Your task to perform on an android device: open chrome privacy settings Image 0: 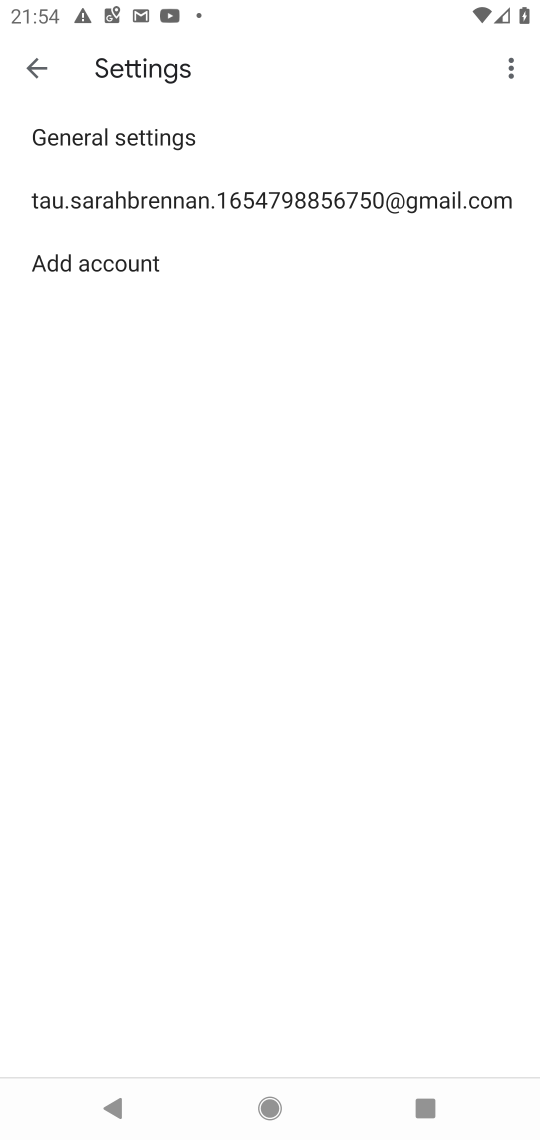
Step 0: press home button
Your task to perform on an android device: open chrome privacy settings Image 1: 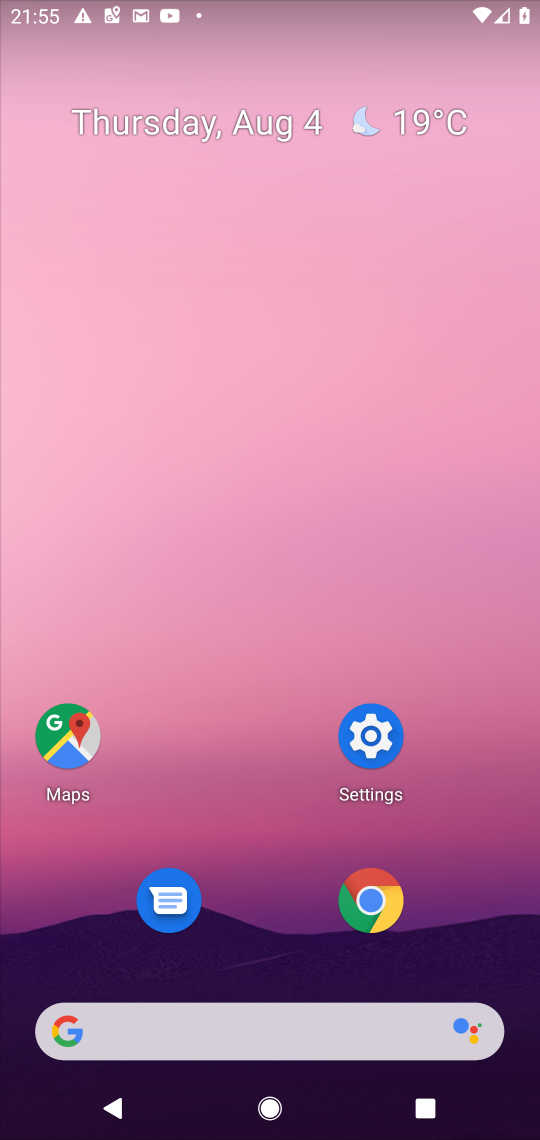
Step 1: click (365, 903)
Your task to perform on an android device: open chrome privacy settings Image 2: 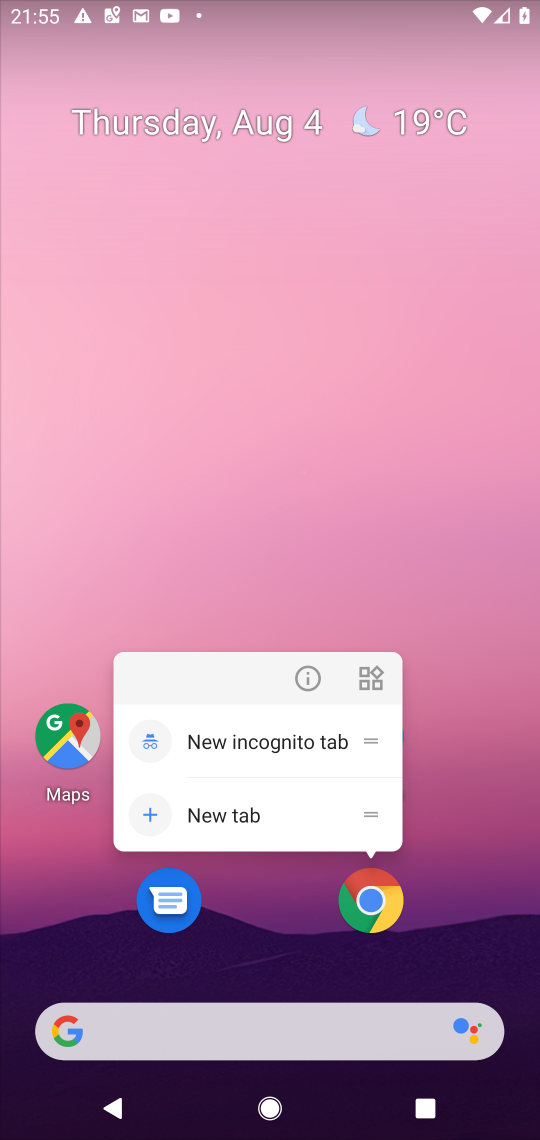
Step 2: click (365, 904)
Your task to perform on an android device: open chrome privacy settings Image 3: 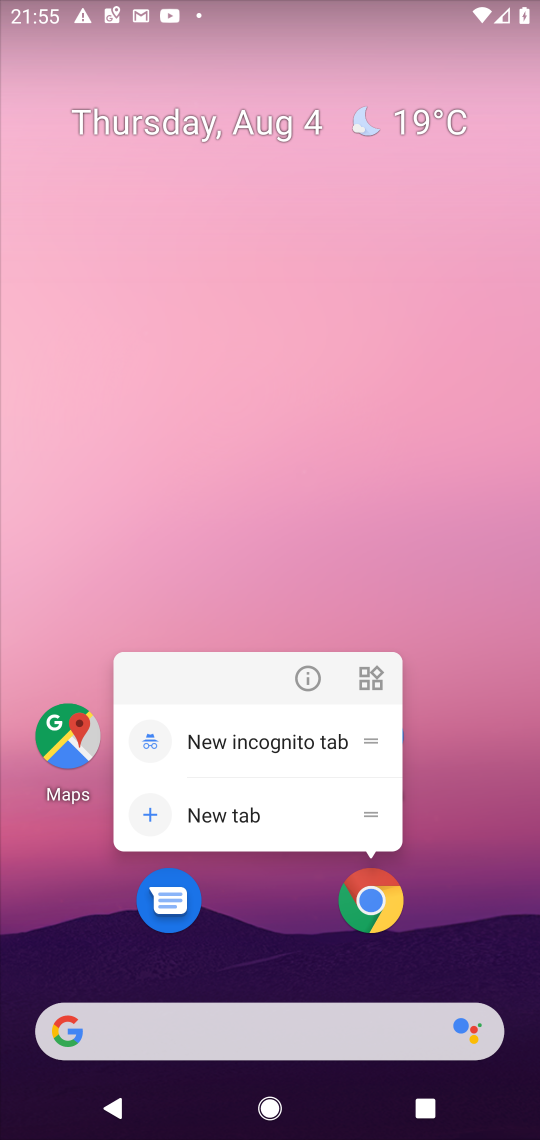
Step 3: click (371, 896)
Your task to perform on an android device: open chrome privacy settings Image 4: 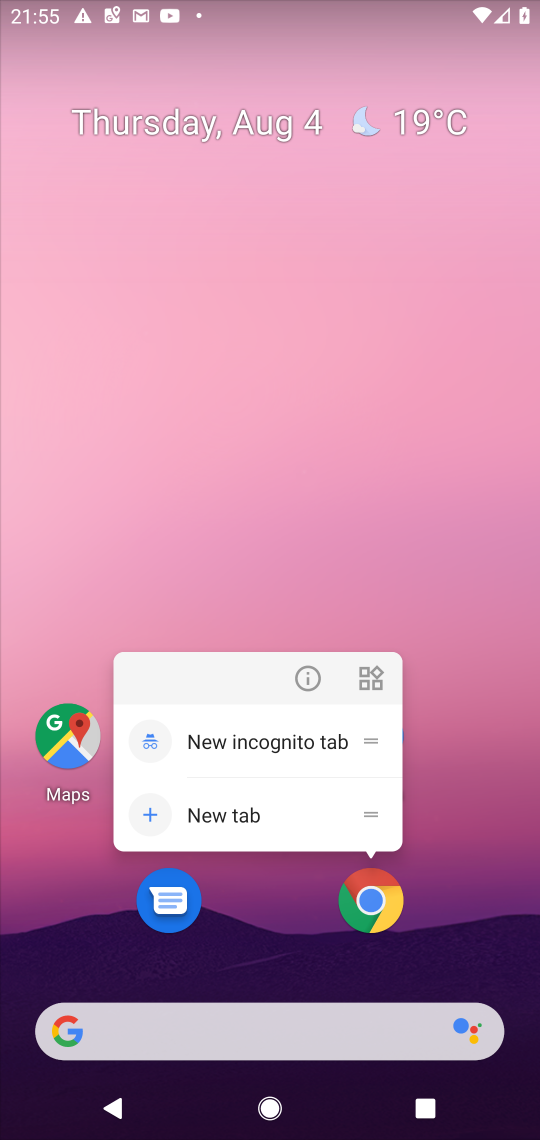
Step 4: click (371, 901)
Your task to perform on an android device: open chrome privacy settings Image 5: 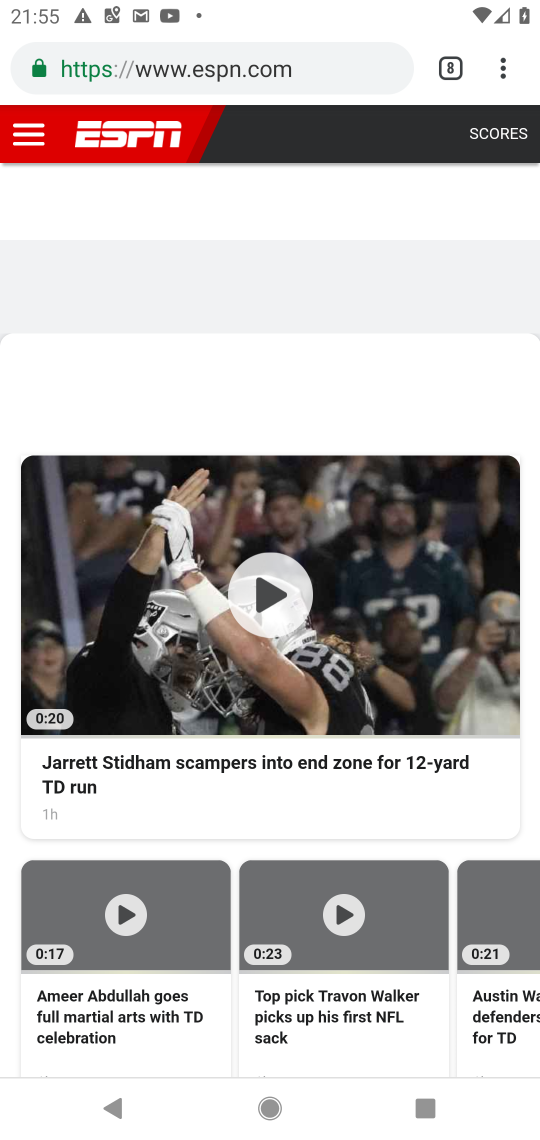
Step 5: drag from (504, 59) to (379, 882)
Your task to perform on an android device: open chrome privacy settings Image 6: 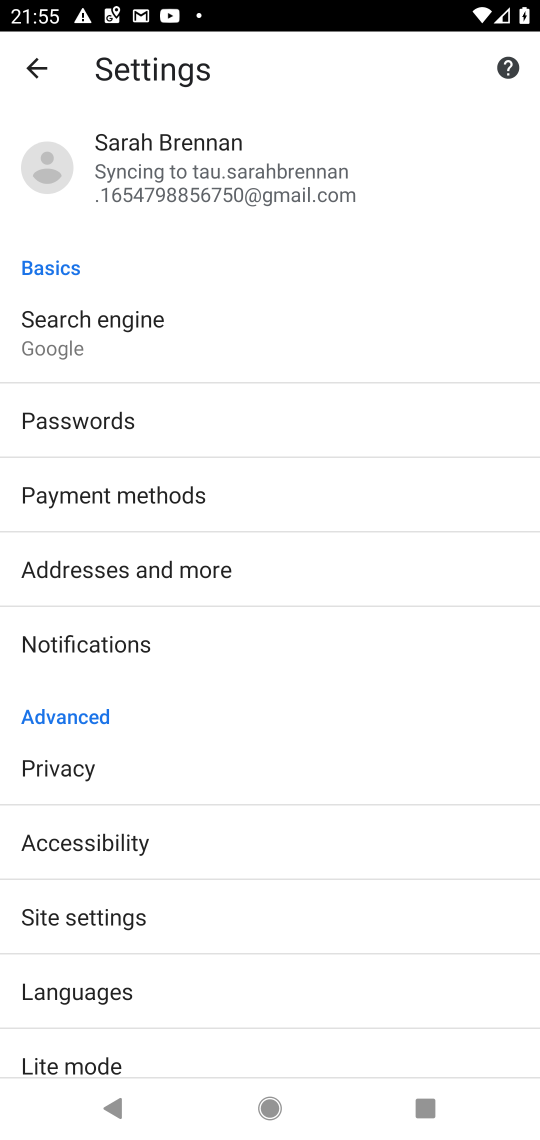
Step 6: click (76, 776)
Your task to perform on an android device: open chrome privacy settings Image 7: 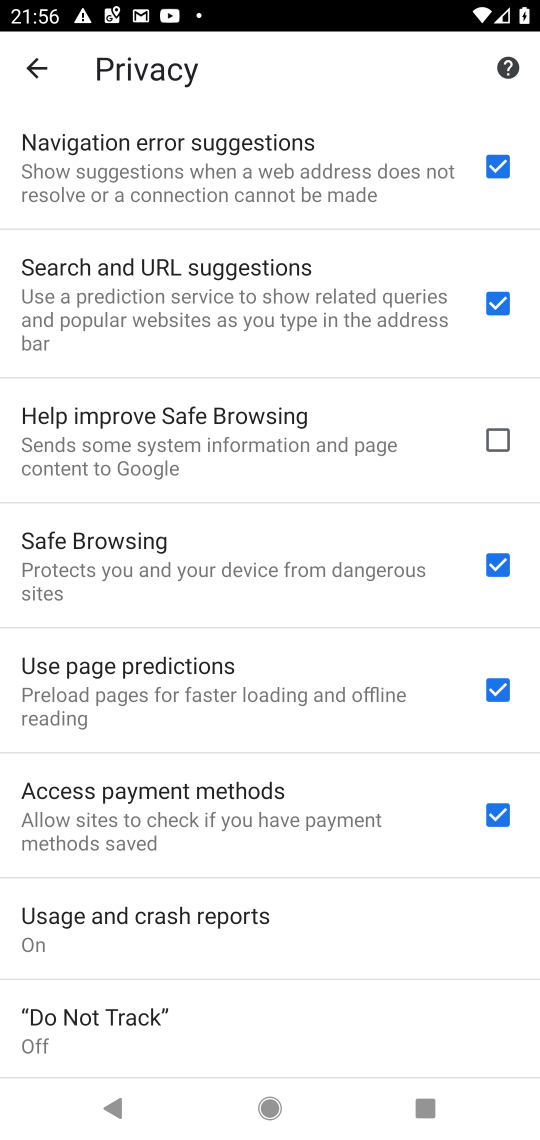
Step 7: task complete